Your task to perform on an android device: turn off notifications in google photos Image 0: 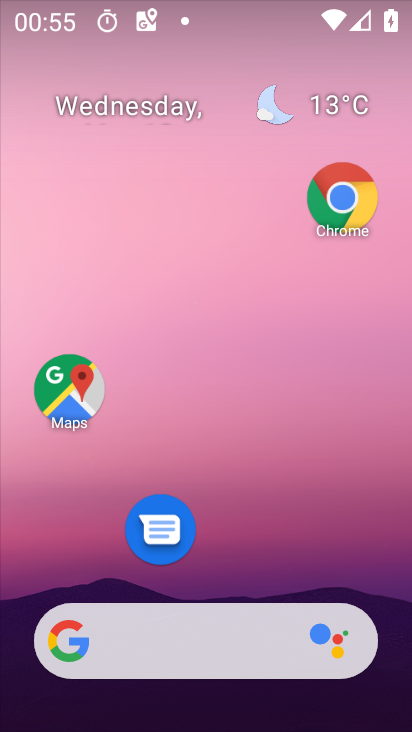
Step 0: drag from (221, 547) to (216, 149)
Your task to perform on an android device: turn off notifications in google photos Image 1: 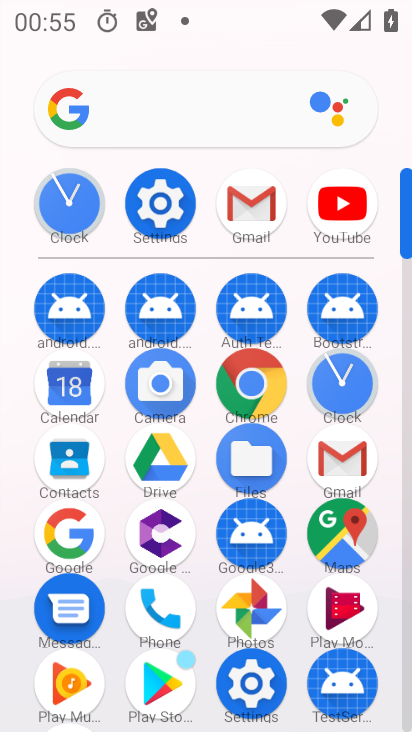
Step 1: click (259, 613)
Your task to perform on an android device: turn off notifications in google photos Image 2: 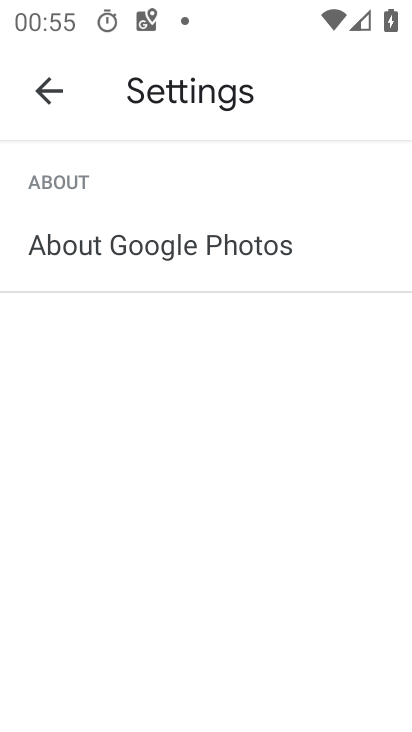
Step 2: click (57, 98)
Your task to perform on an android device: turn off notifications in google photos Image 3: 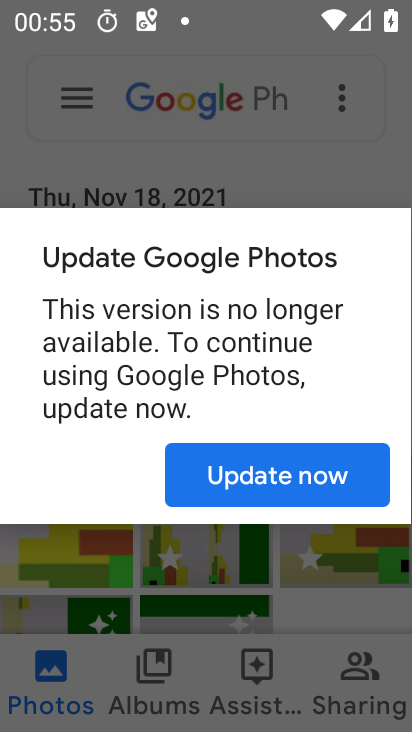
Step 3: click (250, 483)
Your task to perform on an android device: turn off notifications in google photos Image 4: 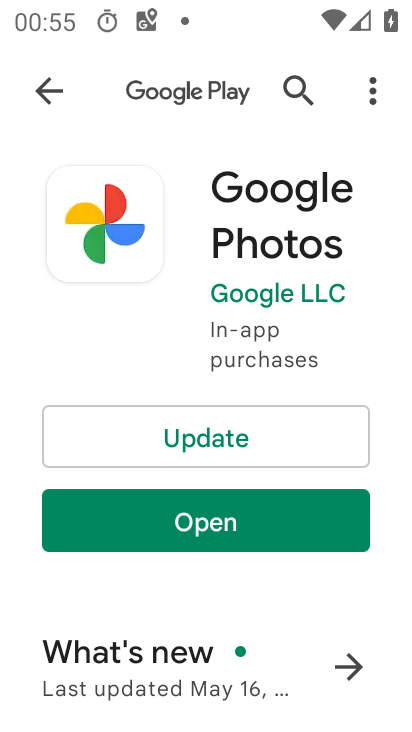
Step 4: click (195, 399)
Your task to perform on an android device: turn off notifications in google photos Image 5: 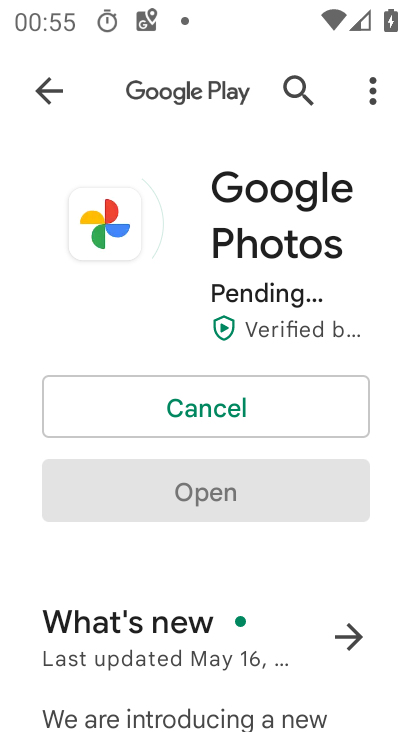
Step 5: click (170, 421)
Your task to perform on an android device: turn off notifications in google photos Image 6: 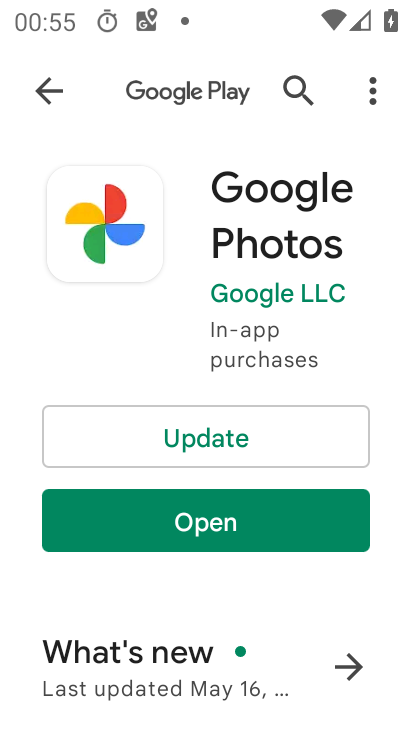
Step 6: click (167, 522)
Your task to perform on an android device: turn off notifications in google photos Image 7: 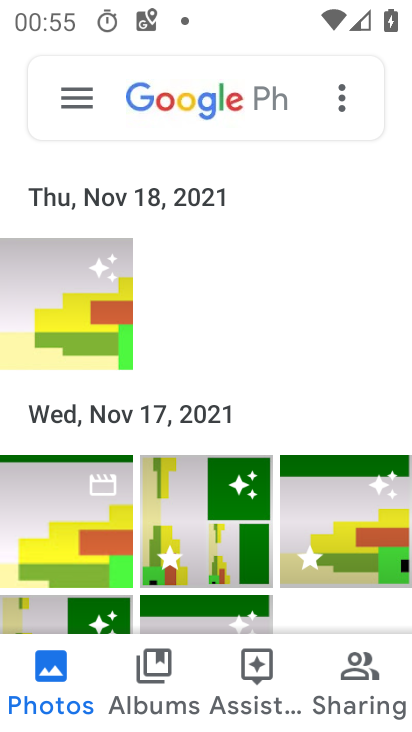
Step 7: click (87, 101)
Your task to perform on an android device: turn off notifications in google photos Image 8: 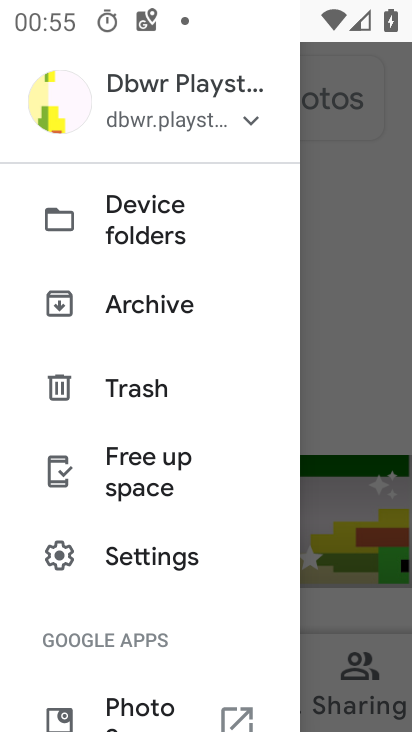
Step 8: click (89, 584)
Your task to perform on an android device: turn off notifications in google photos Image 9: 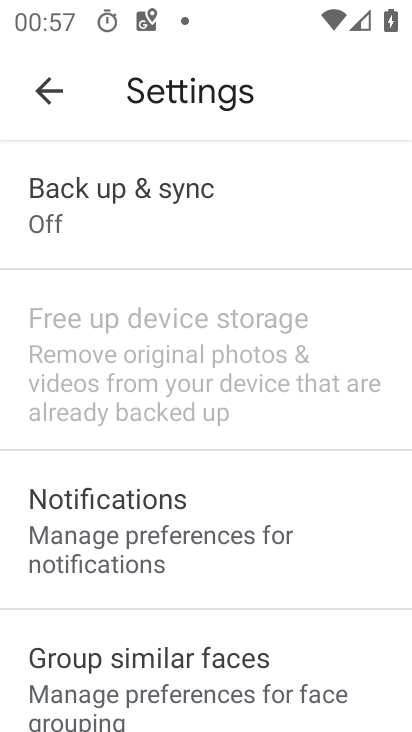
Step 9: click (197, 521)
Your task to perform on an android device: turn off notifications in google photos Image 10: 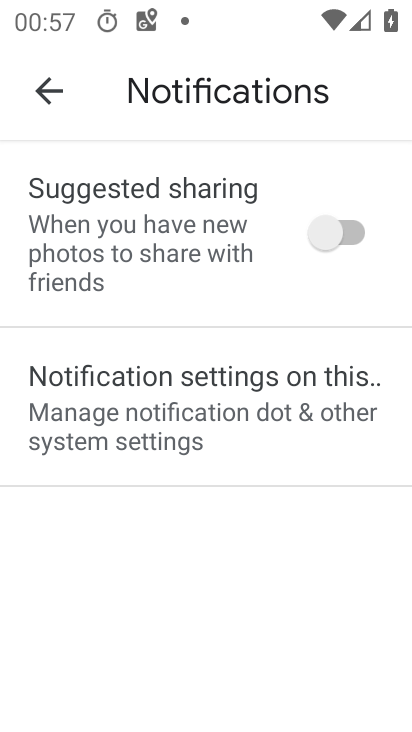
Step 10: click (213, 408)
Your task to perform on an android device: turn off notifications in google photos Image 11: 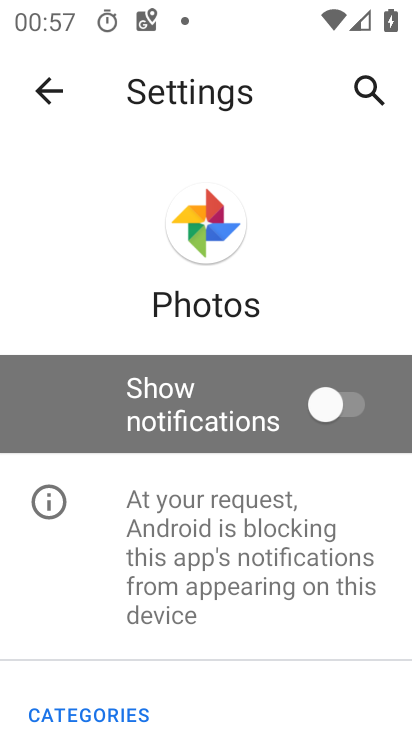
Step 11: task complete